Your task to perform on an android device: move a message to another label in the gmail app Image 0: 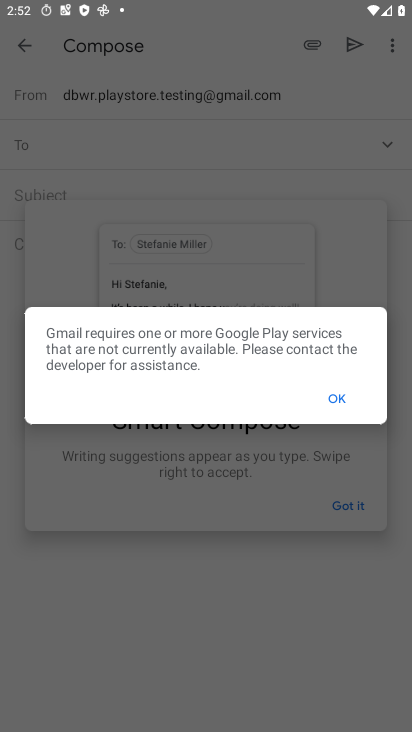
Step 0: press home button
Your task to perform on an android device: move a message to another label in the gmail app Image 1: 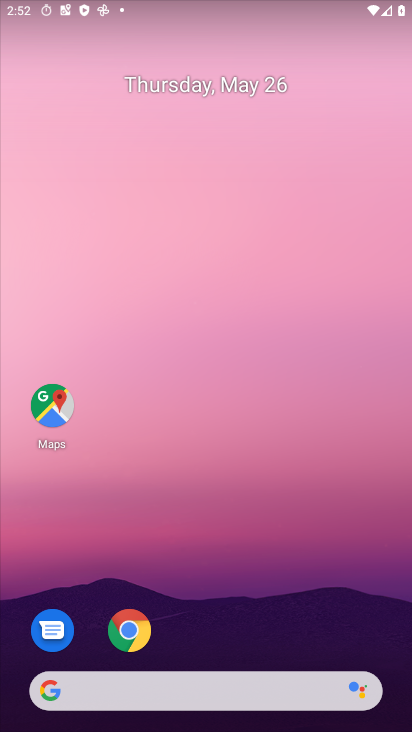
Step 1: drag from (230, 630) to (287, 83)
Your task to perform on an android device: move a message to another label in the gmail app Image 2: 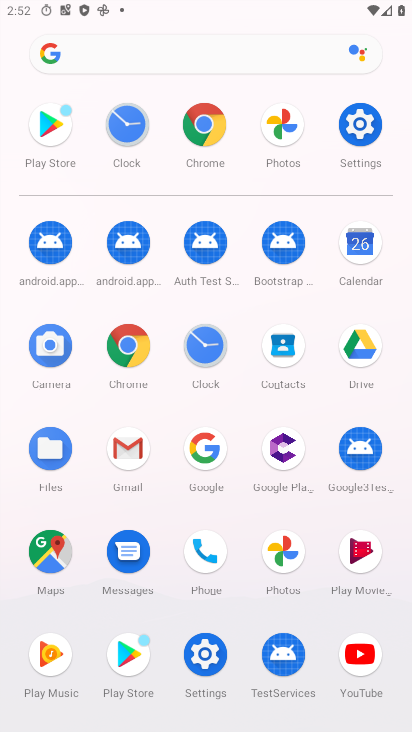
Step 2: click (136, 452)
Your task to perform on an android device: move a message to another label in the gmail app Image 3: 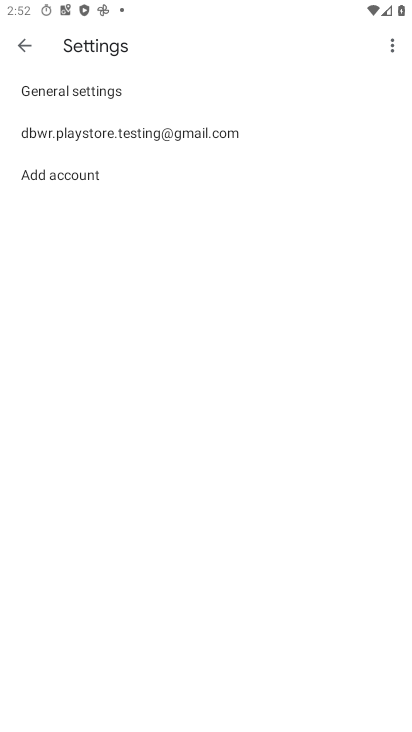
Step 3: press back button
Your task to perform on an android device: move a message to another label in the gmail app Image 4: 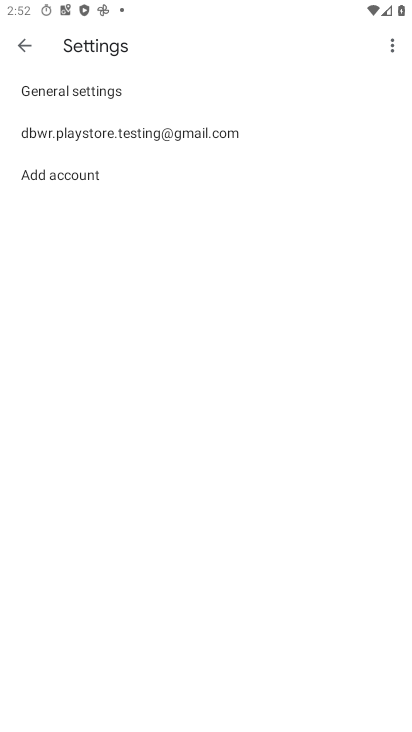
Step 4: press back button
Your task to perform on an android device: move a message to another label in the gmail app Image 5: 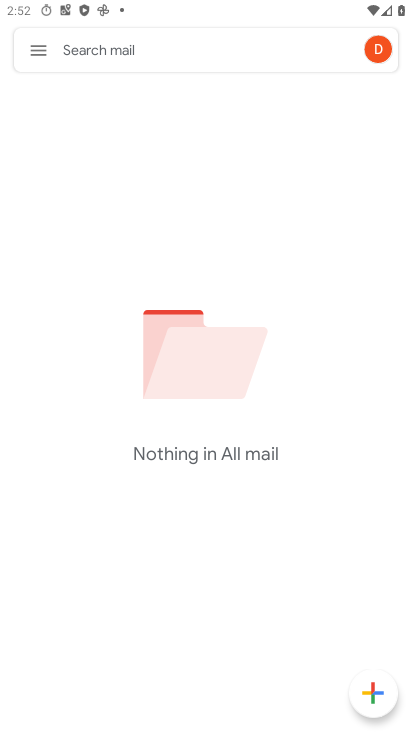
Step 5: click (44, 46)
Your task to perform on an android device: move a message to another label in the gmail app Image 6: 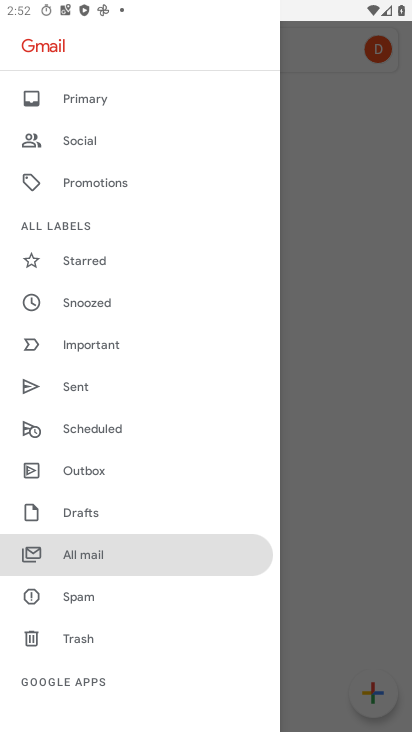
Step 6: click (119, 105)
Your task to perform on an android device: move a message to another label in the gmail app Image 7: 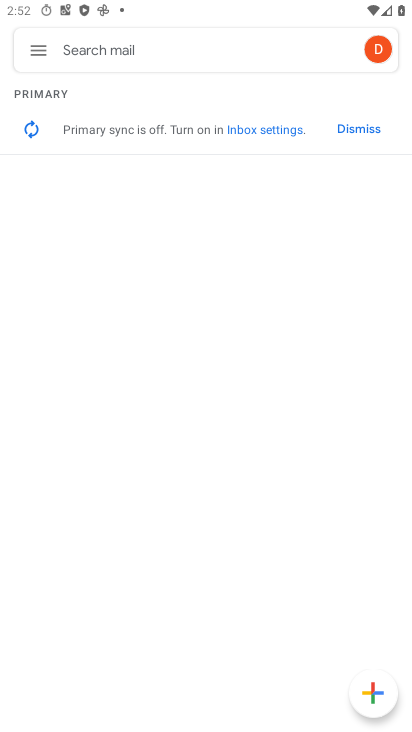
Step 7: task complete